Your task to perform on an android device: see tabs open on other devices in the chrome app Image 0: 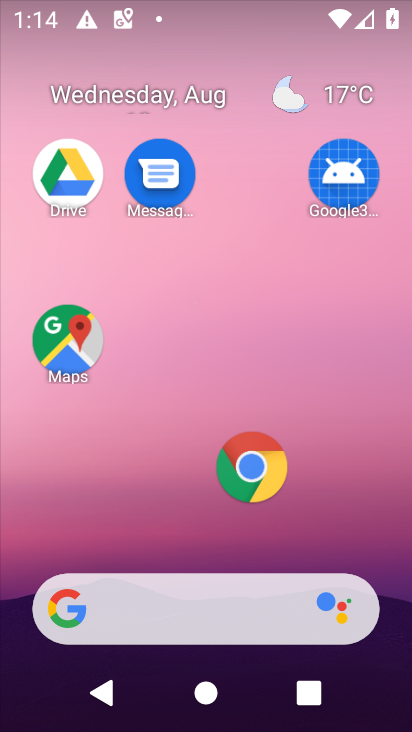
Step 0: click (231, 486)
Your task to perform on an android device: see tabs open on other devices in the chrome app Image 1: 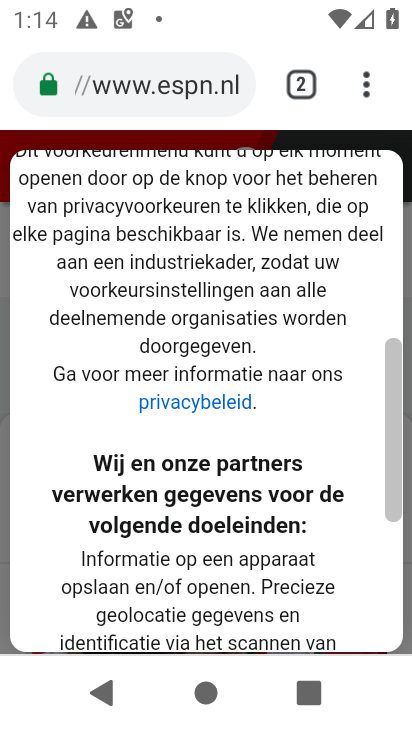
Step 1: click (392, 89)
Your task to perform on an android device: see tabs open on other devices in the chrome app Image 2: 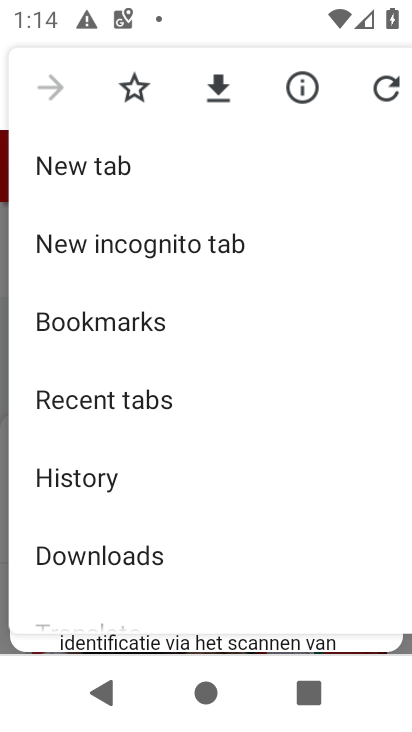
Step 2: drag from (184, 518) to (249, 228)
Your task to perform on an android device: see tabs open on other devices in the chrome app Image 3: 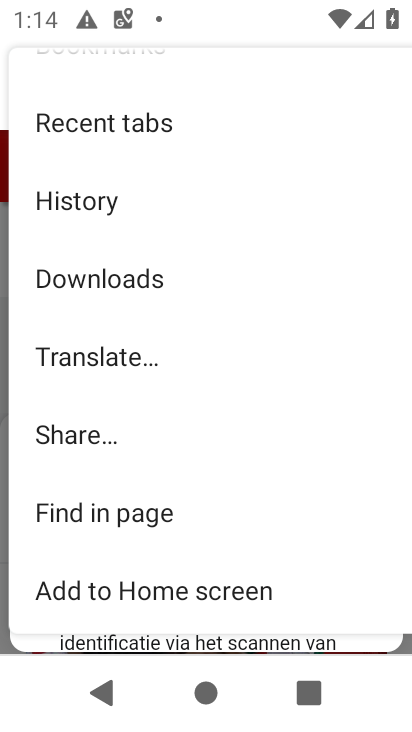
Step 3: click (206, 147)
Your task to perform on an android device: see tabs open on other devices in the chrome app Image 4: 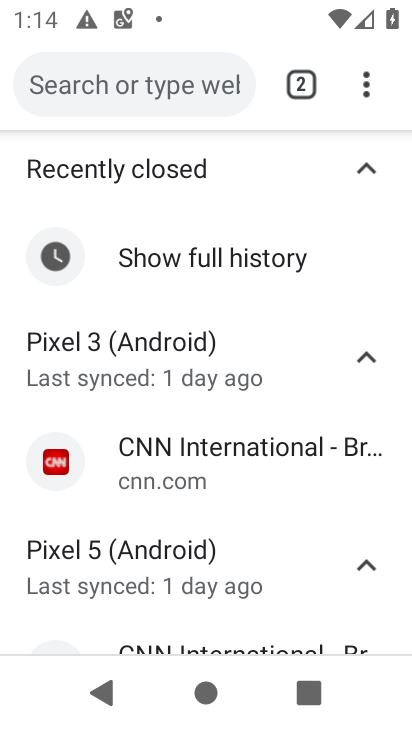
Step 4: task complete